Your task to perform on an android device: Search for sushi restaurants on Maps Image 0: 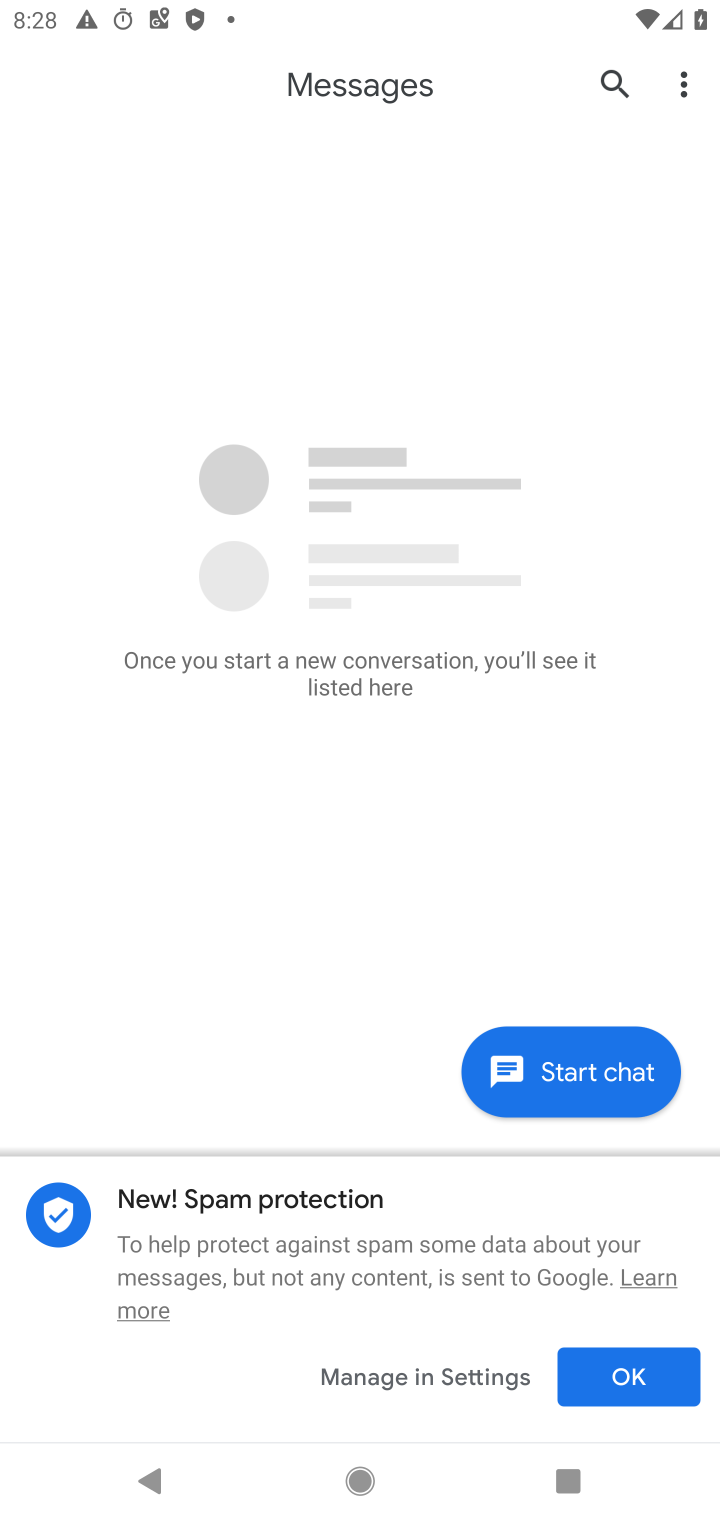
Step 0: press home button
Your task to perform on an android device: Search for sushi restaurants on Maps Image 1: 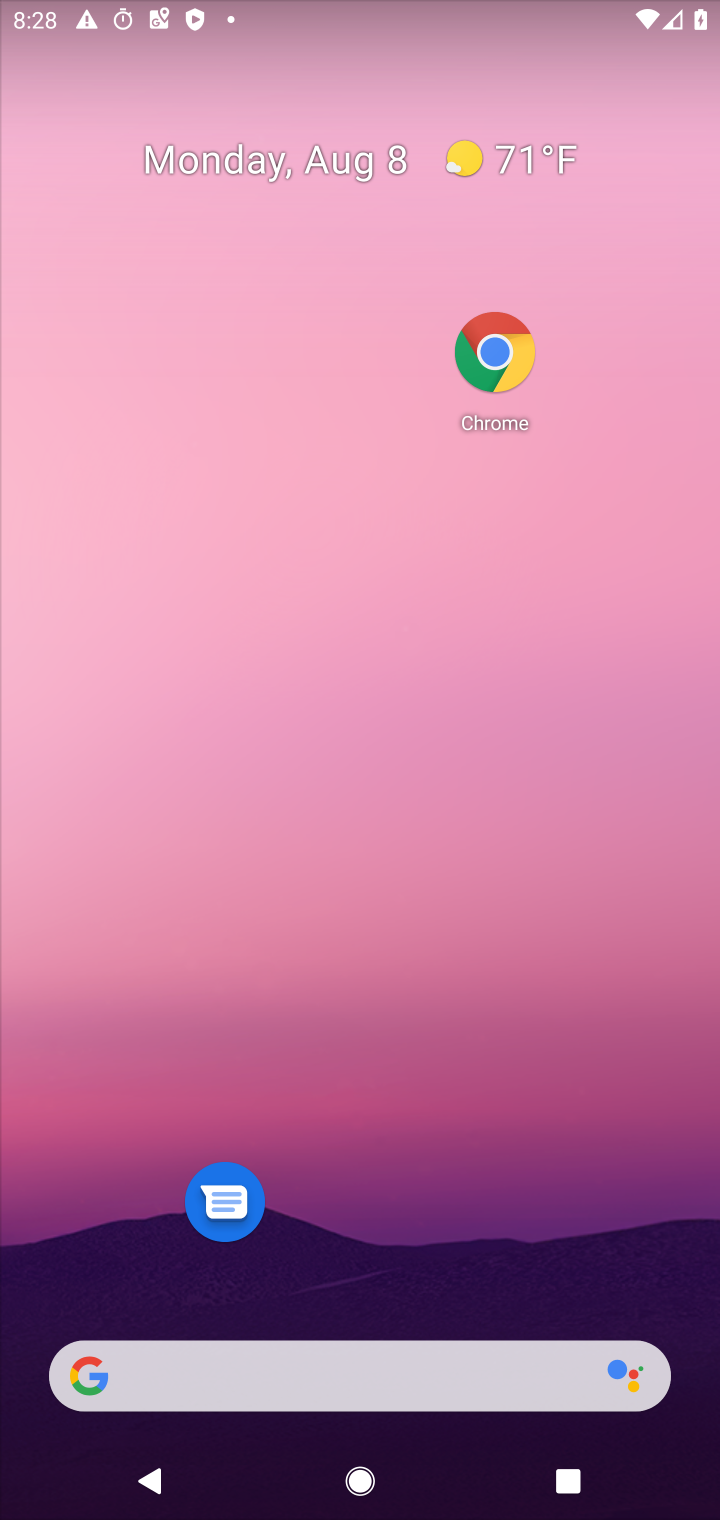
Step 1: drag from (388, 1293) to (570, 114)
Your task to perform on an android device: Search for sushi restaurants on Maps Image 2: 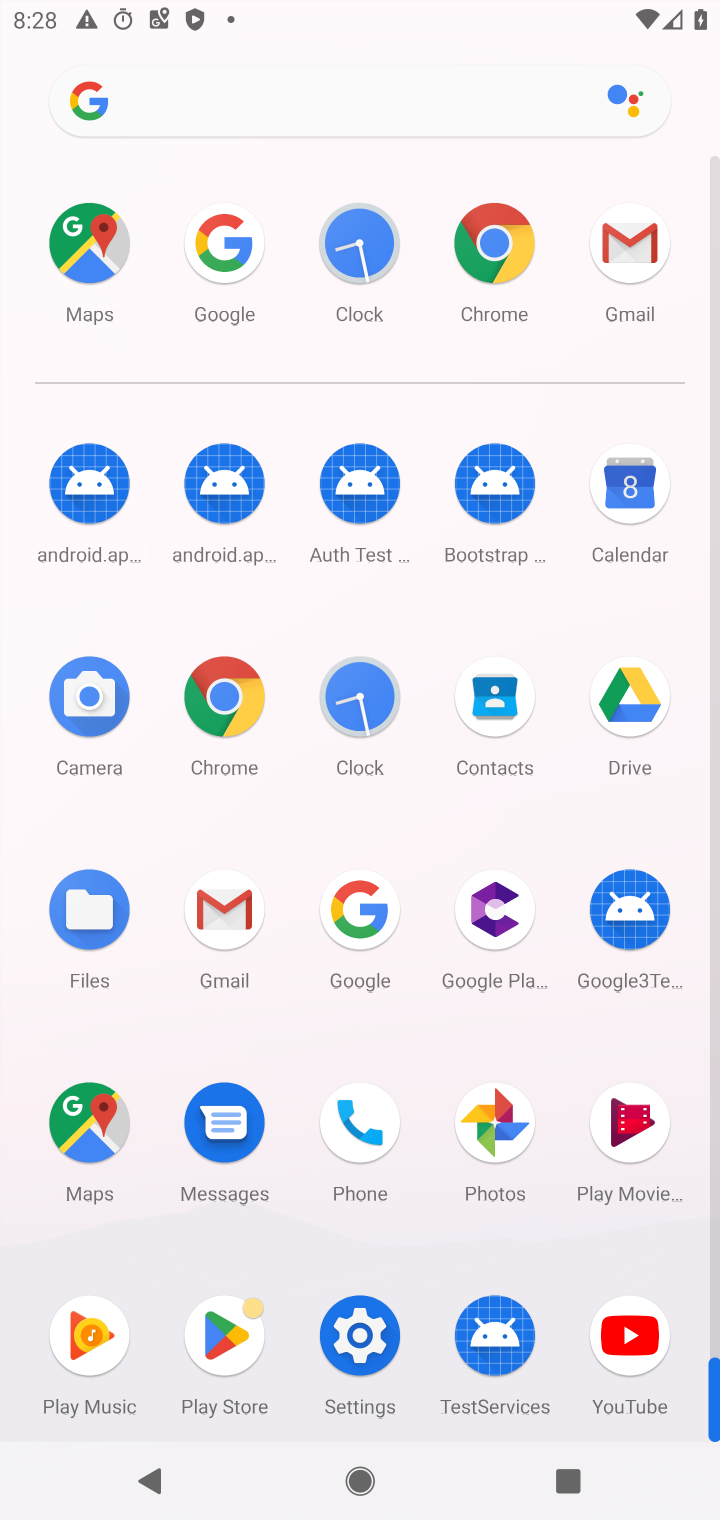
Step 2: click (76, 1159)
Your task to perform on an android device: Search for sushi restaurants on Maps Image 3: 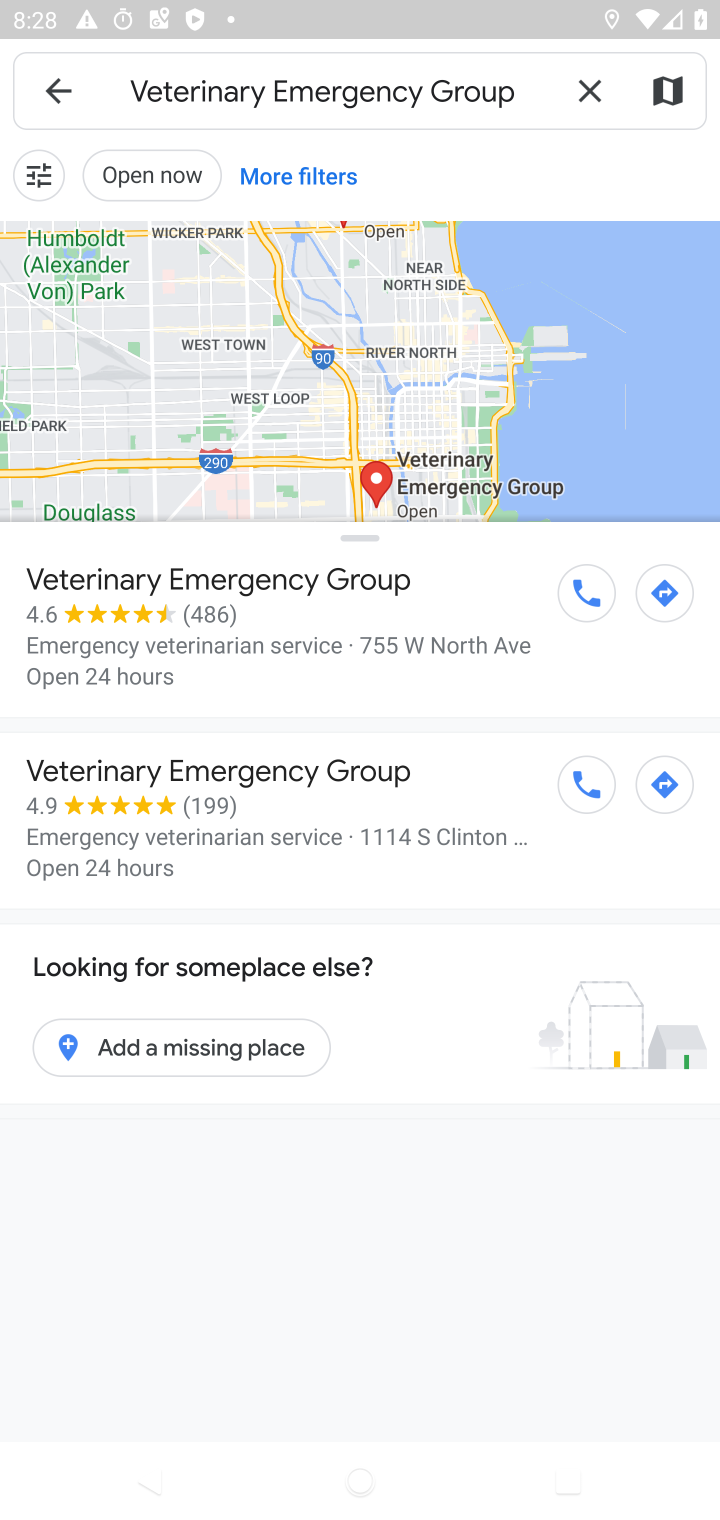
Step 3: click (62, 88)
Your task to perform on an android device: Search for sushi restaurants on Maps Image 4: 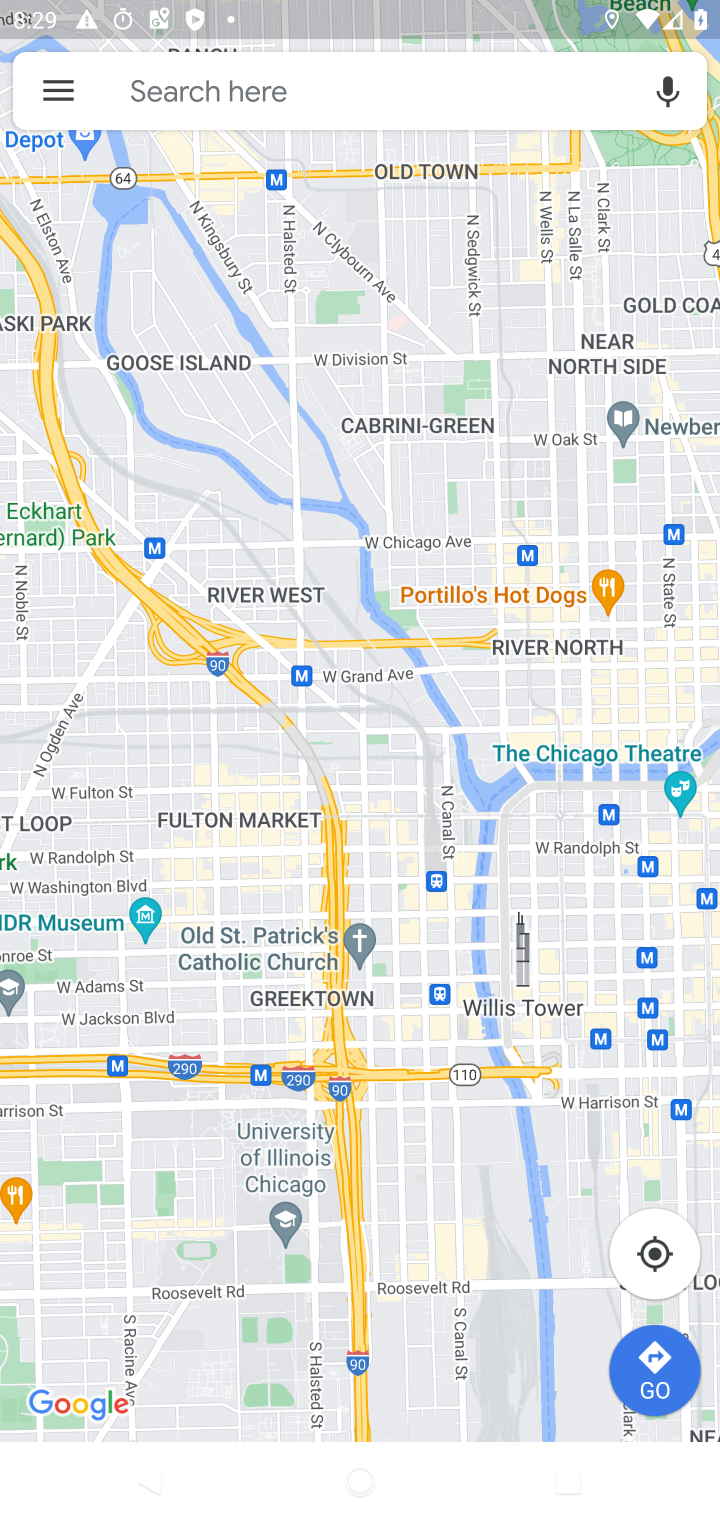
Step 4: click (303, 91)
Your task to perform on an android device: Search for sushi restaurants on Maps Image 5: 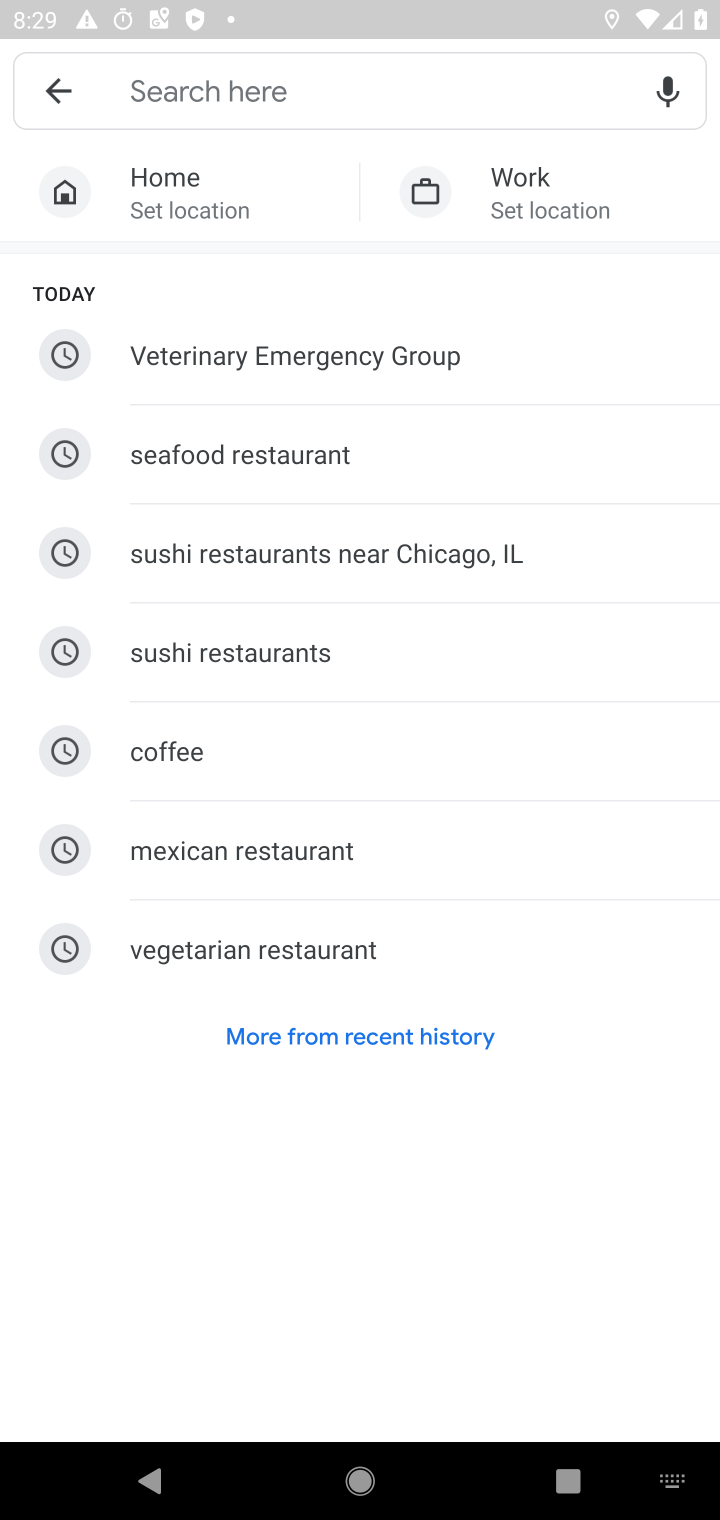
Step 5: type "sushi restaurants"
Your task to perform on an android device: Search for sushi restaurants on Maps Image 6: 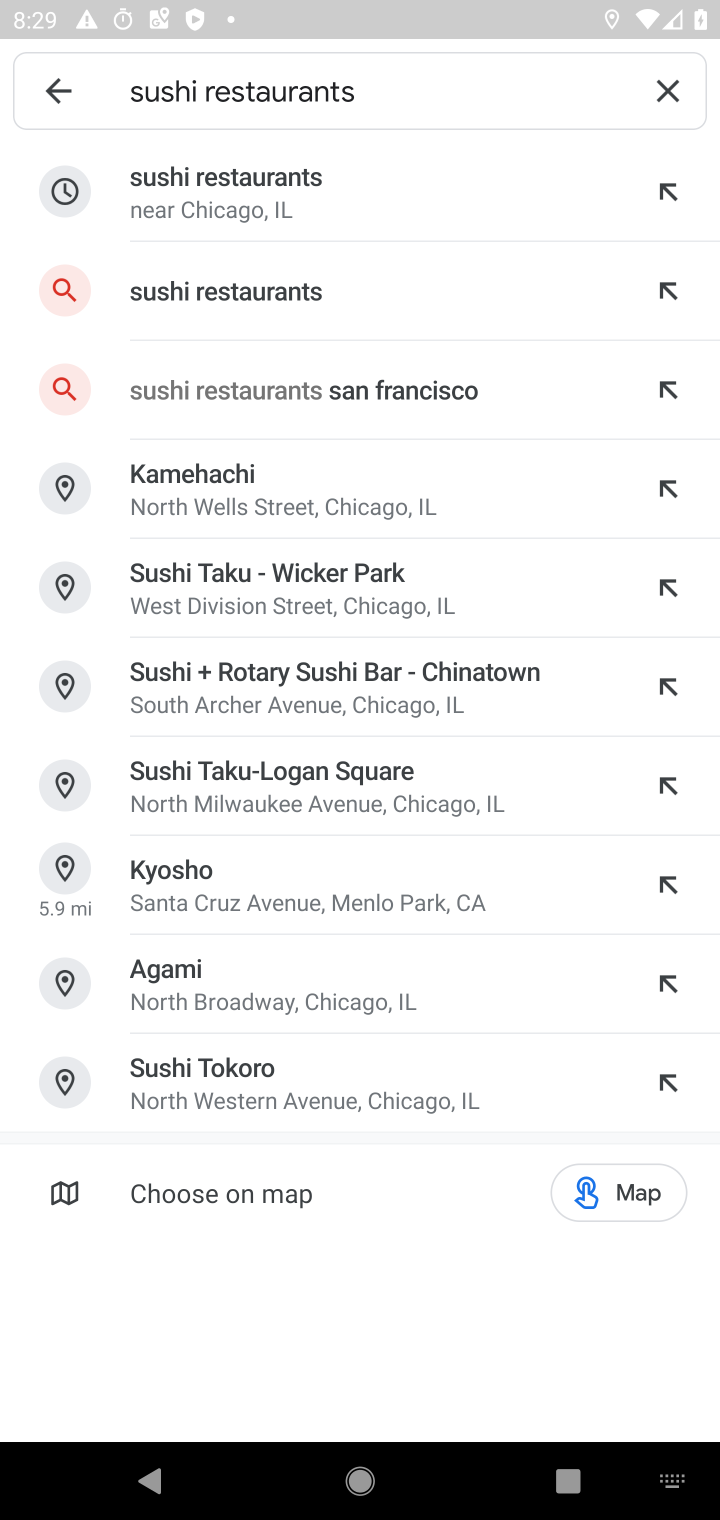
Step 6: click (298, 204)
Your task to perform on an android device: Search for sushi restaurants on Maps Image 7: 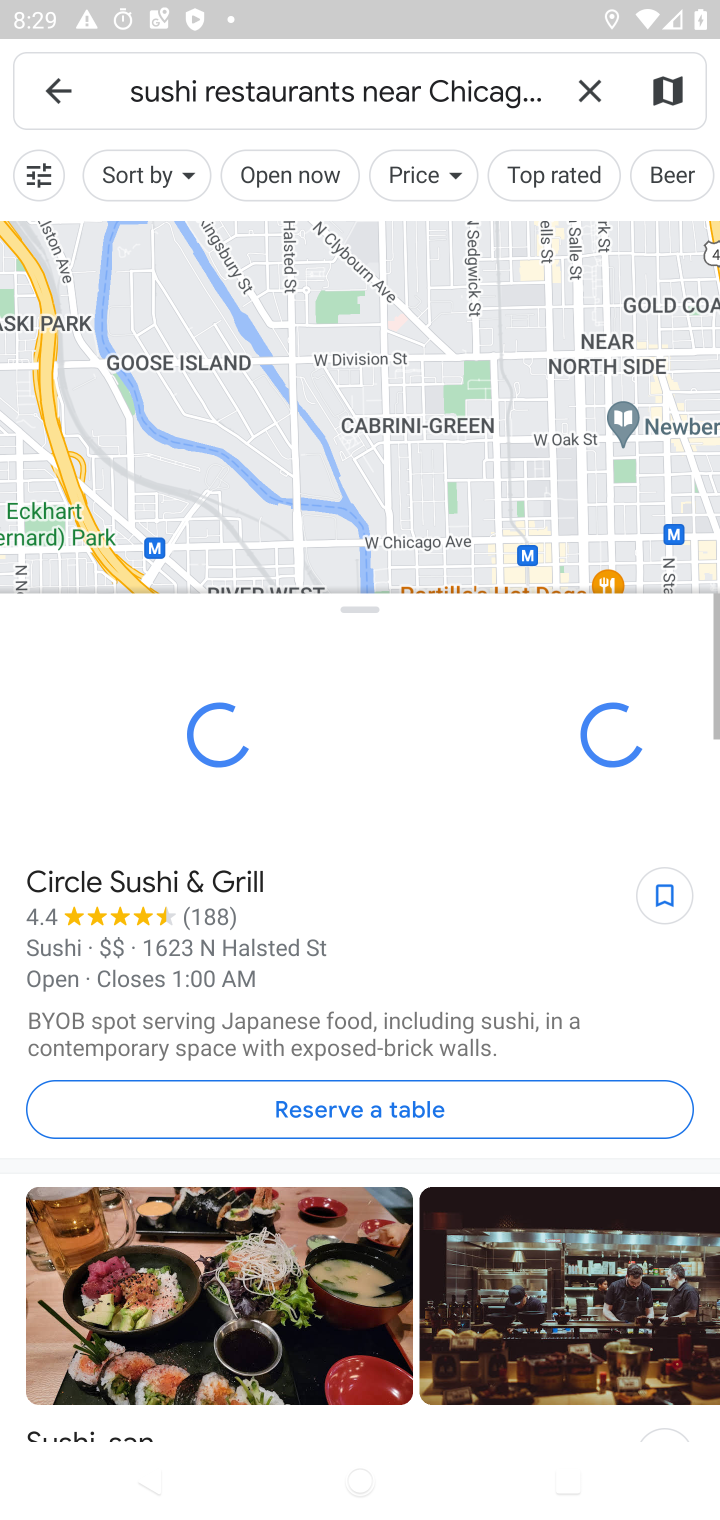
Step 7: task complete